Your task to perform on an android device: Open Yahoo.com Image 0: 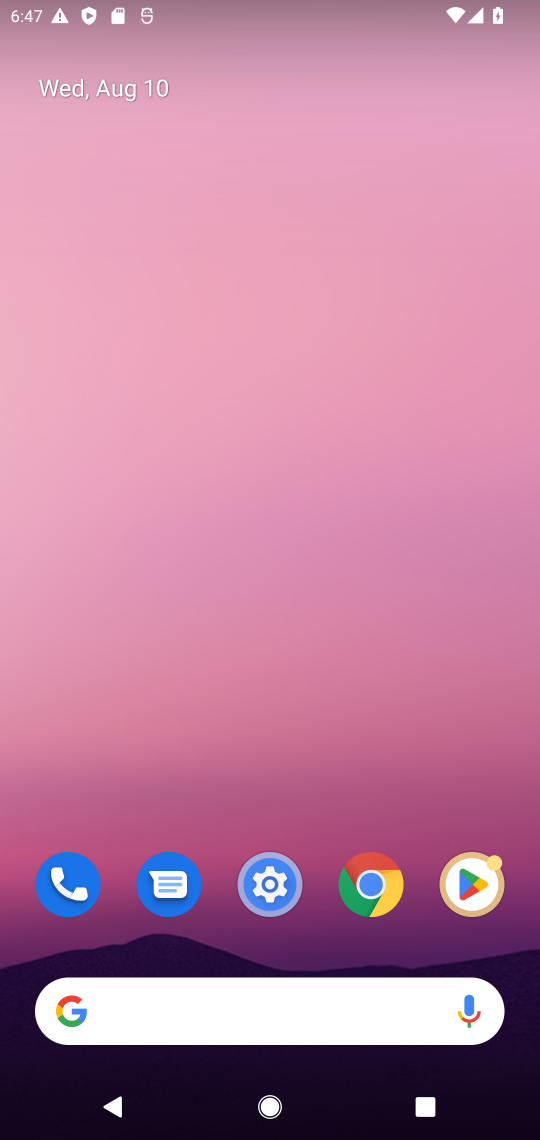
Step 0: click (209, 1013)
Your task to perform on an android device: Open Yahoo.com Image 1: 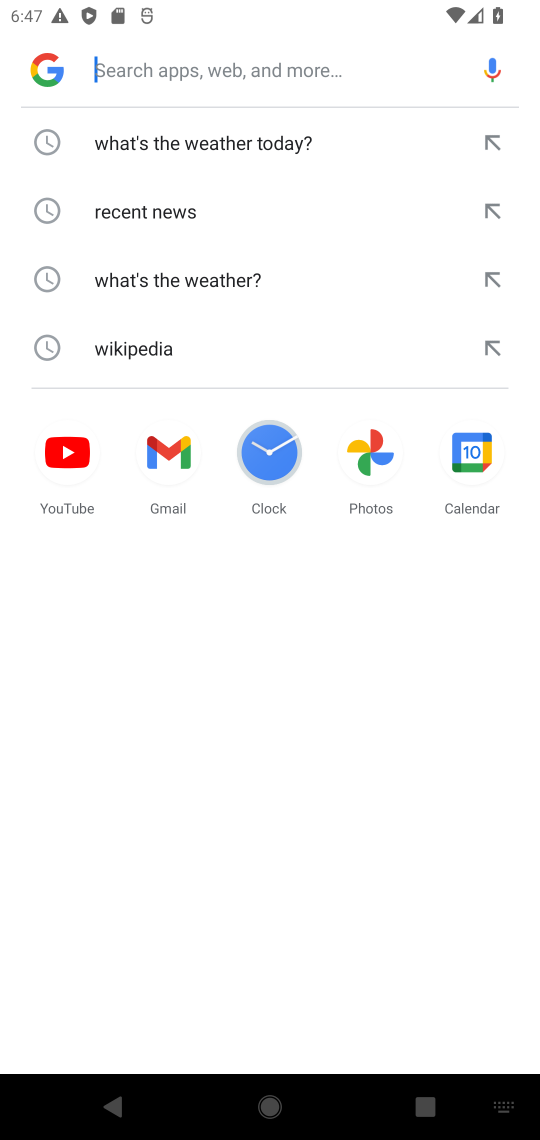
Step 1: type "Yahoo.com"
Your task to perform on an android device: Open Yahoo.com Image 2: 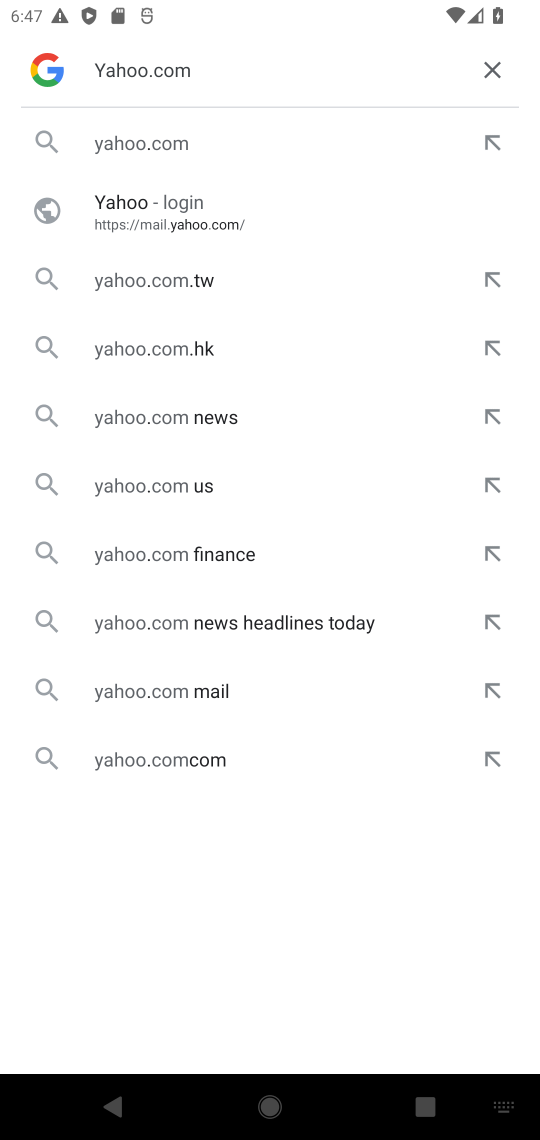
Step 2: click (174, 137)
Your task to perform on an android device: Open Yahoo.com Image 3: 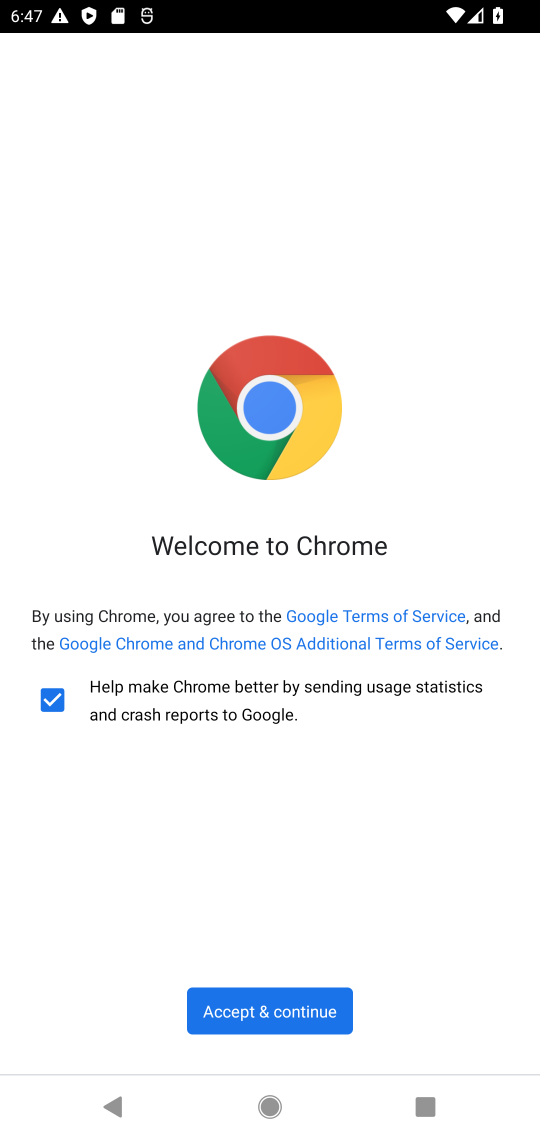
Step 3: click (241, 1023)
Your task to perform on an android device: Open Yahoo.com Image 4: 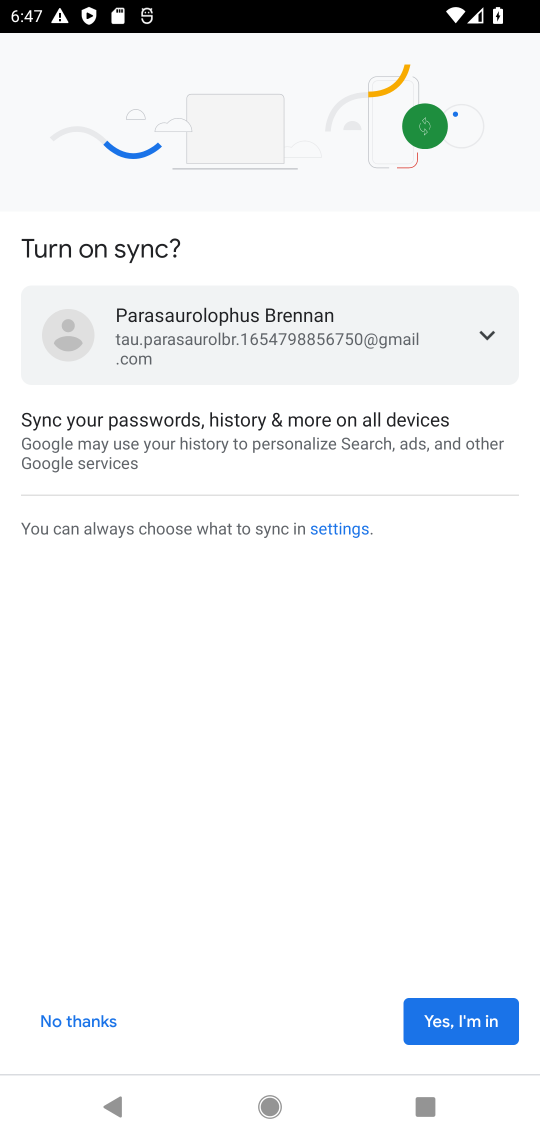
Step 4: click (68, 1032)
Your task to perform on an android device: Open Yahoo.com Image 5: 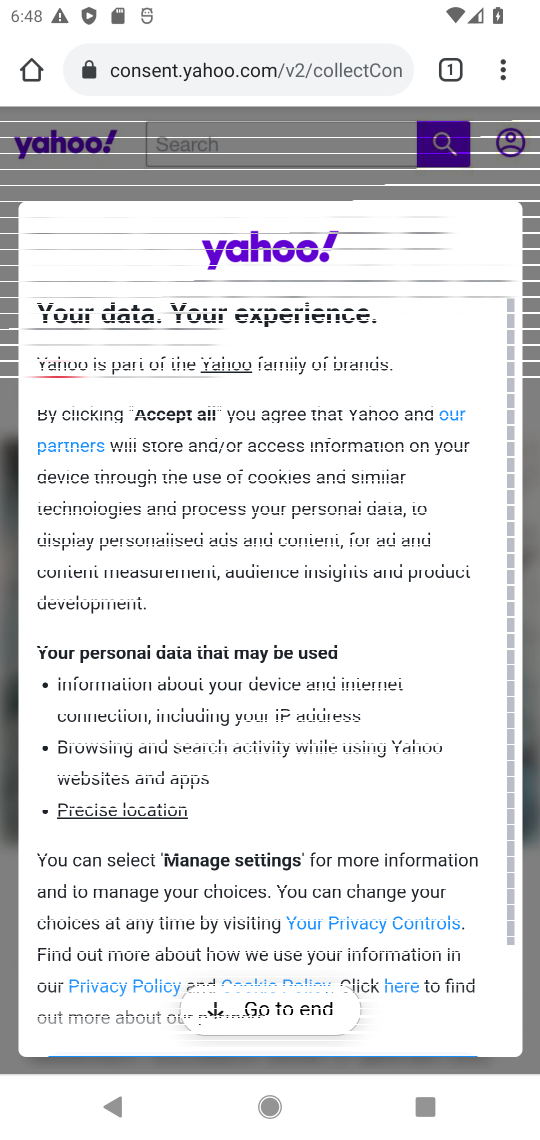
Step 5: task complete